Your task to perform on an android device: open sync settings in chrome Image 0: 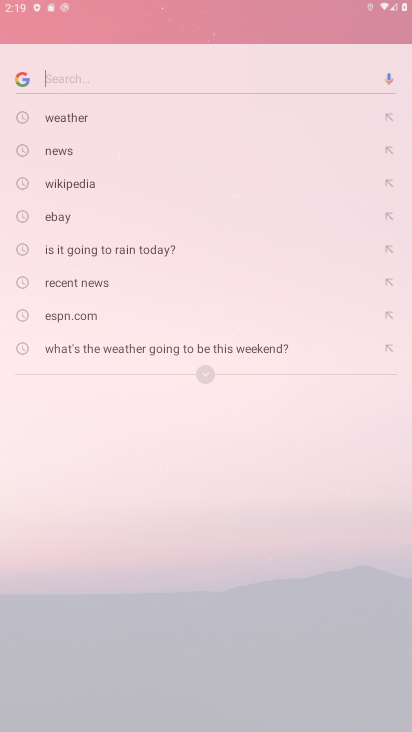
Step 0: press home button
Your task to perform on an android device: open sync settings in chrome Image 1: 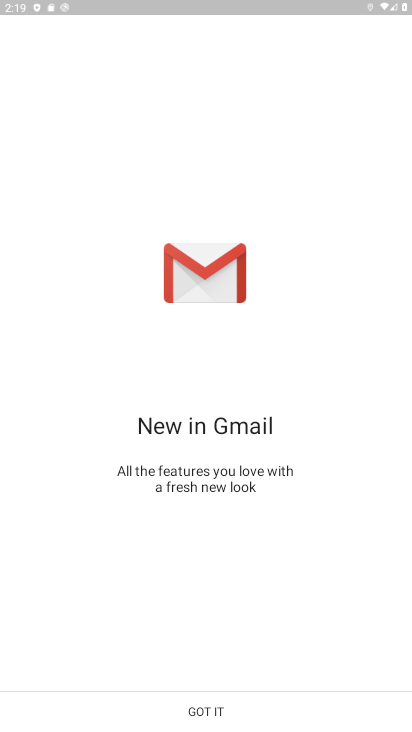
Step 1: drag from (400, 295) to (348, 303)
Your task to perform on an android device: open sync settings in chrome Image 2: 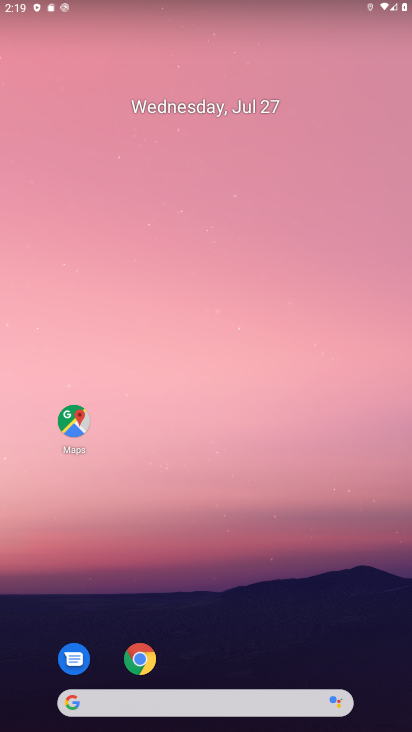
Step 2: click (139, 676)
Your task to perform on an android device: open sync settings in chrome Image 3: 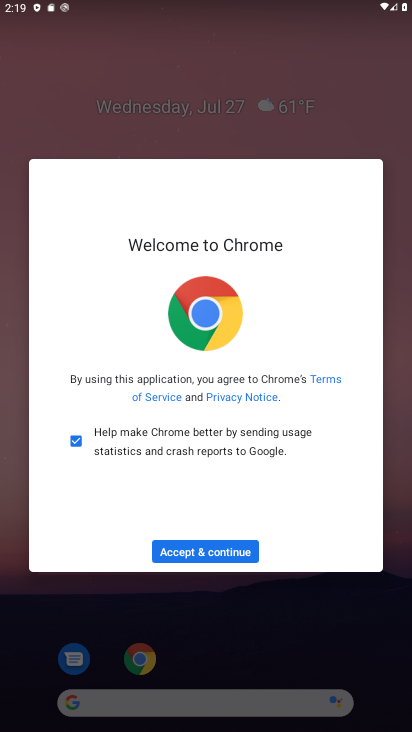
Step 3: click (208, 564)
Your task to perform on an android device: open sync settings in chrome Image 4: 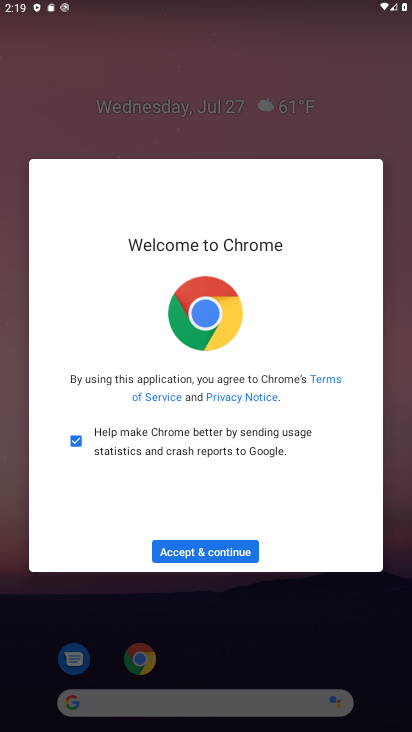
Step 4: click (219, 559)
Your task to perform on an android device: open sync settings in chrome Image 5: 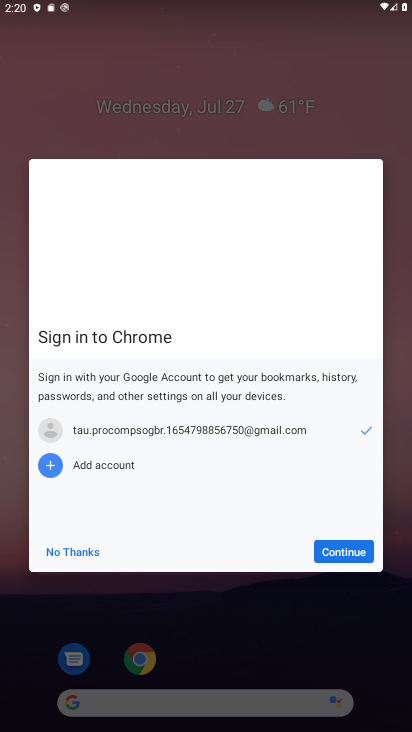
Step 5: click (341, 556)
Your task to perform on an android device: open sync settings in chrome Image 6: 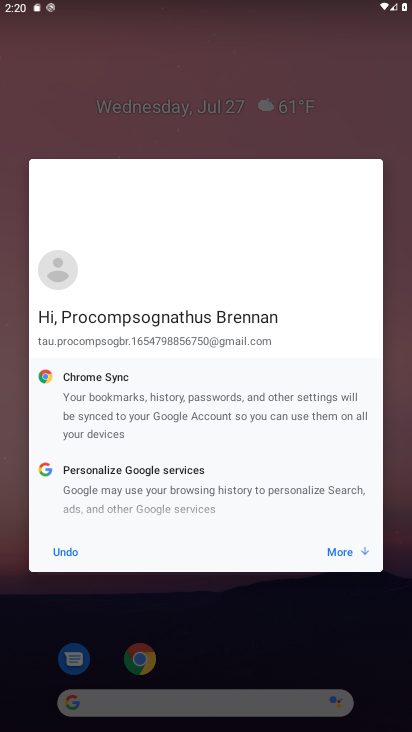
Step 6: click (341, 556)
Your task to perform on an android device: open sync settings in chrome Image 7: 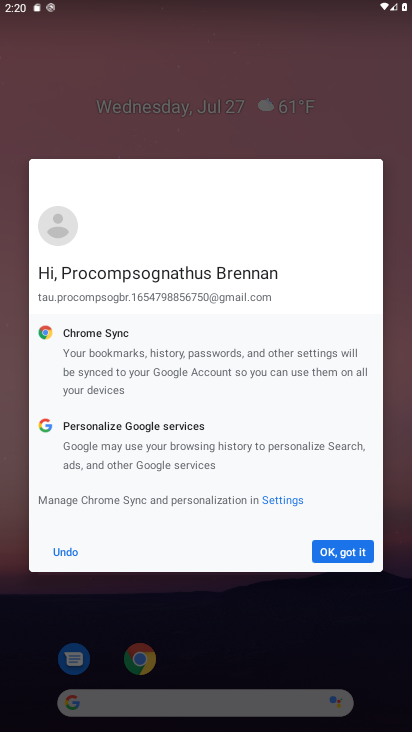
Step 7: click (341, 556)
Your task to perform on an android device: open sync settings in chrome Image 8: 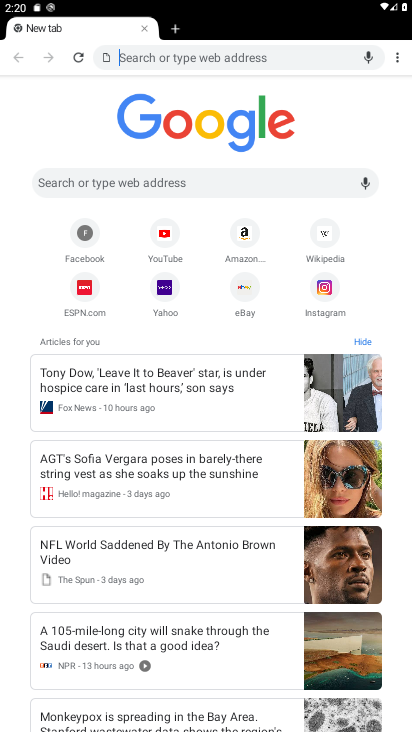
Step 8: drag from (400, 57) to (300, 268)
Your task to perform on an android device: open sync settings in chrome Image 9: 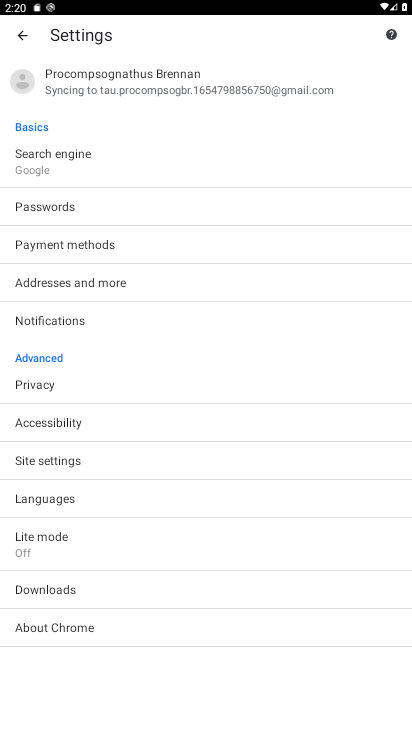
Step 9: click (65, 96)
Your task to perform on an android device: open sync settings in chrome Image 10: 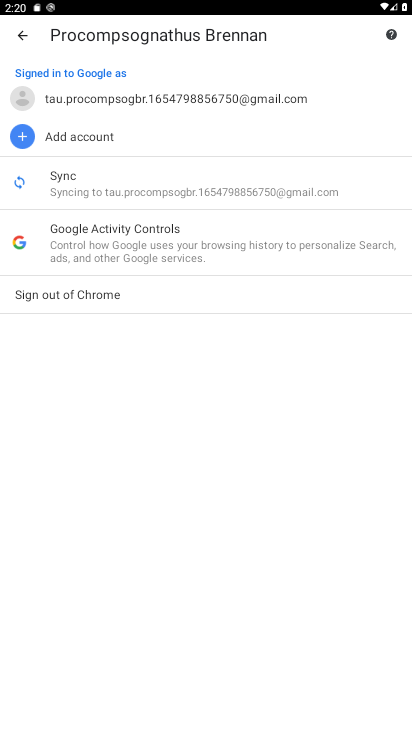
Step 10: click (168, 175)
Your task to perform on an android device: open sync settings in chrome Image 11: 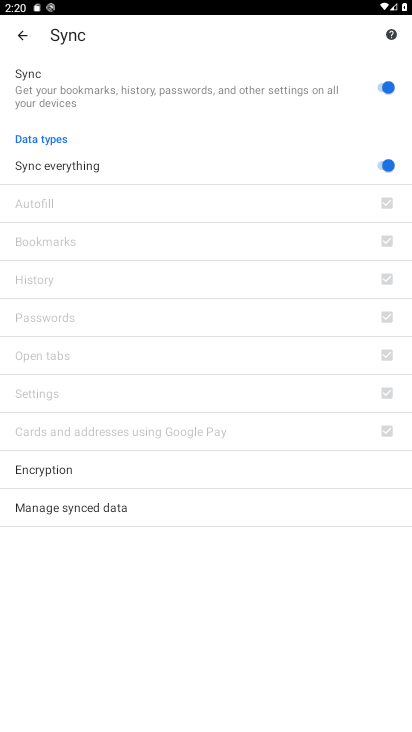
Step 11: task complete